Your task to perform on an android device: open chrome privacy settings Image 0: 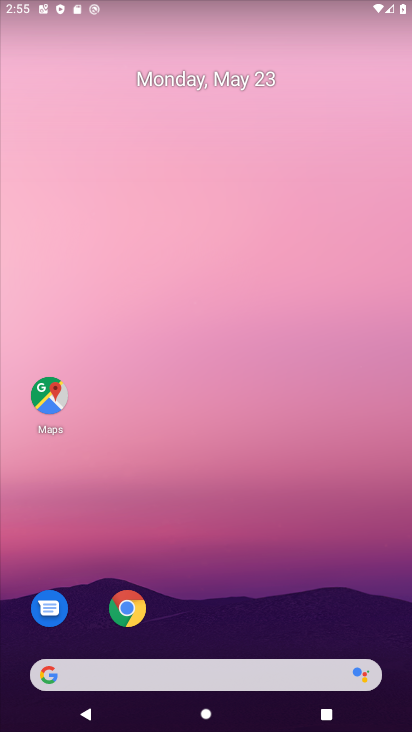
Step 0: click (127, 610)
Your task to perform on an android device: open chrome privacy settings Image 1: 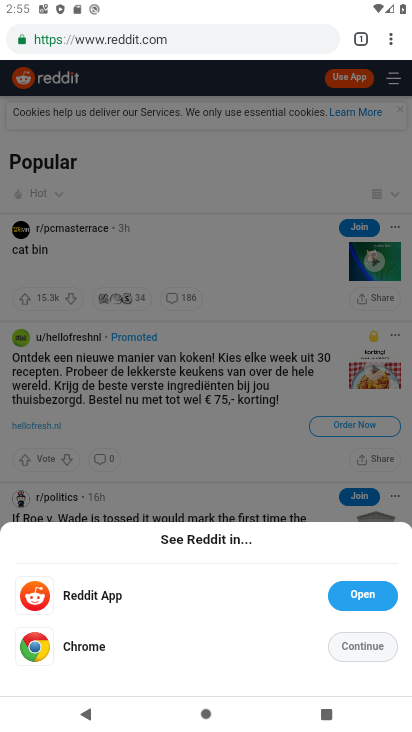
Step 1: click (392, 39)
Your task to perform on an android device: open chrome privacy settings Image 2: 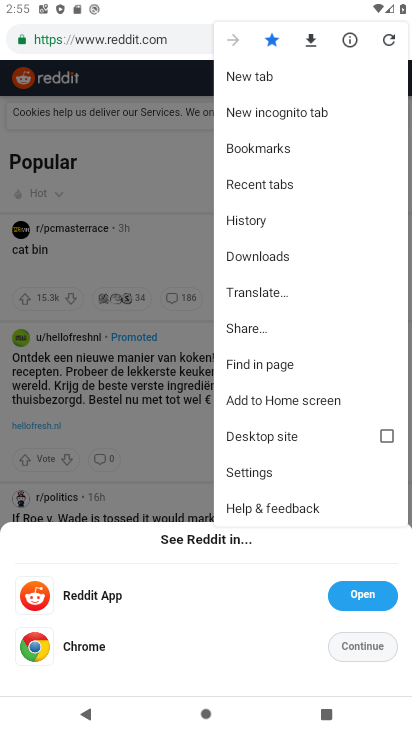
Step 2: click (259, 474)
Your task to perform on an android device: open chrome privacy settings Image 3: 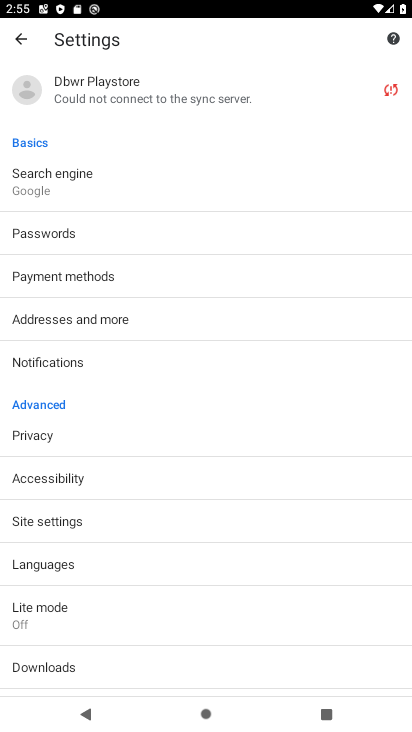
Step 3: click (47, 431)
Your task to perform on an android device: open chrome privacy settings Image 4: 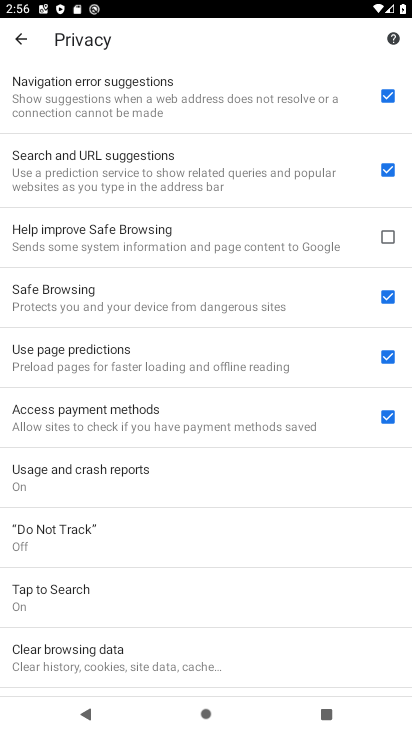
Step 4: task complete